Your task to perform on an android device: find photos in the google photos app Image 0: 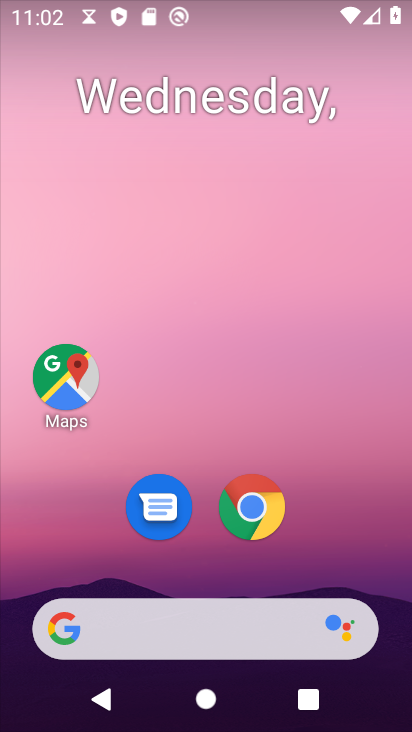
Step 0: drag from (223, 638) to (249, 181)
Your task to perform on an android device: find photos in the google photos app Image 1: 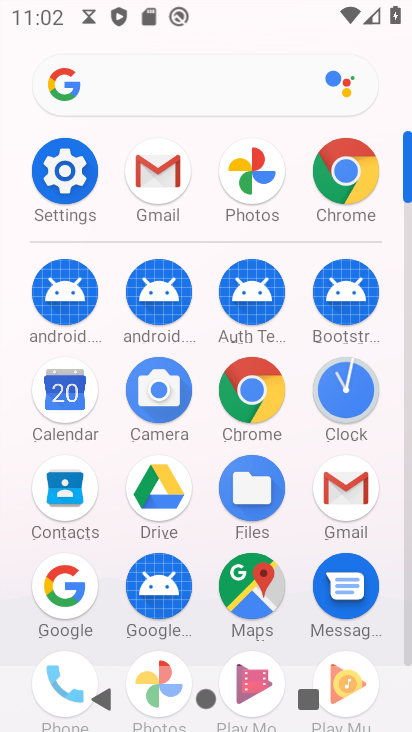
Step 1: click (159, 651)
Your task to perform on an android device: find photos in the google photos app Image 2: 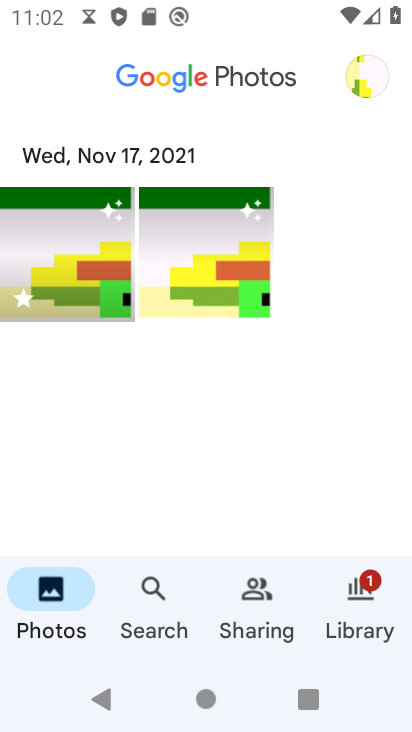
Step 2: task complete